Your task to perform on an android device: Is it going to rain tomorrow? Image 0: 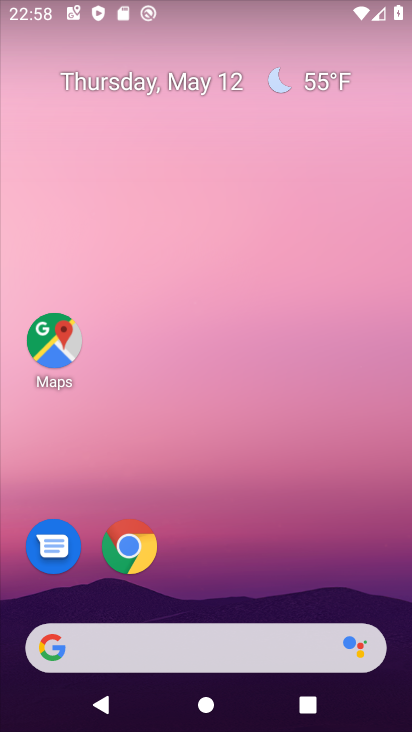
Step 0: click (122, 544)
Your task to perform on an android device: Is it going to rain tomorrow? Image 1: 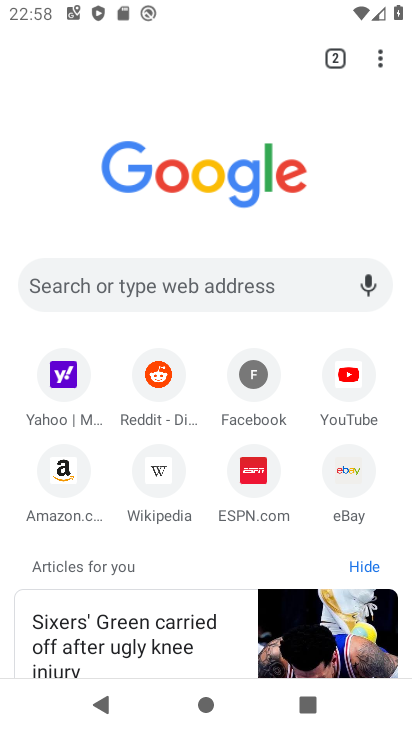
Step 1: click (129, 291)
Your task to perform on an android device: Is it going to rain tomorrow? Image 2: 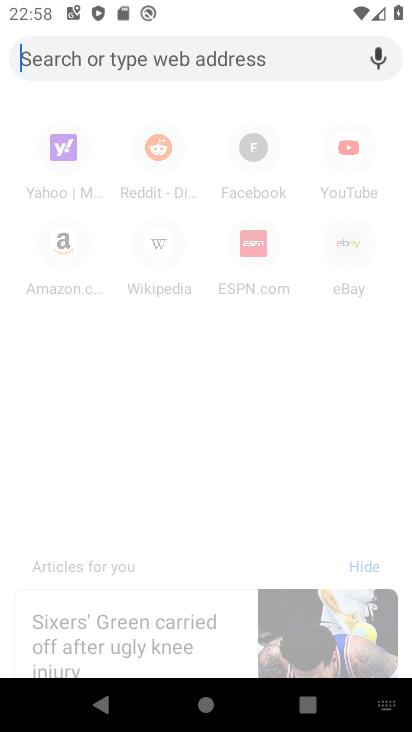
Step 2: type "Is it going to rain tomorrow?"
Your task to perform on an android device: Is it going to rain tomorrow? Image 3: 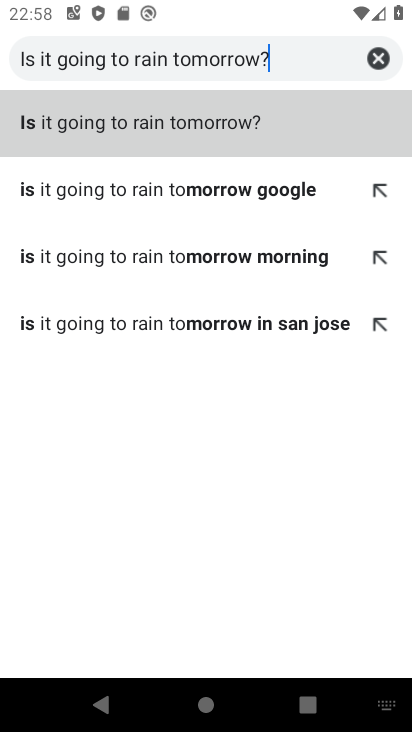
Step 3: click (211, 140)
Your task to perform on an android device: Is it going to rain tomorrow? Image 4: 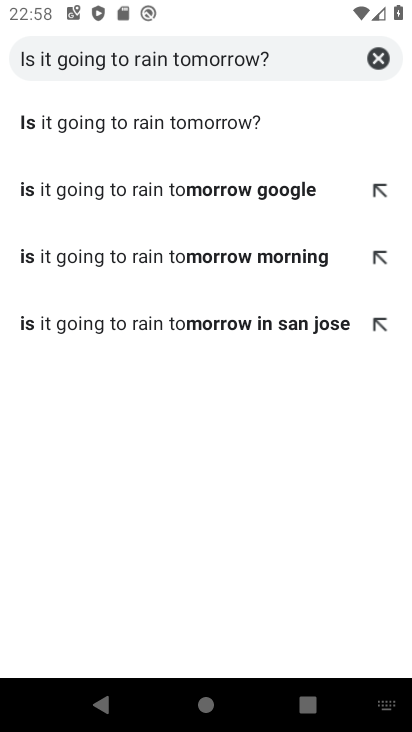
Step 4: click (134, 121)
Your task to perform on an android device: Is it going to rain tomorrow? Image 5: 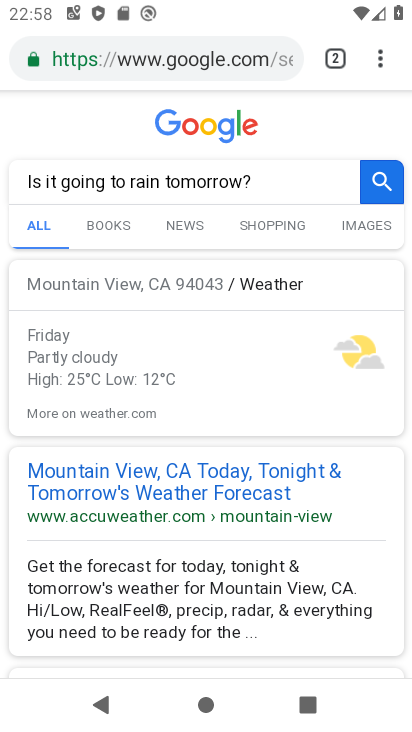
Step 5: task complete